Your task to perform on an android device: Open calendar and show me the third week of next month Image 0: 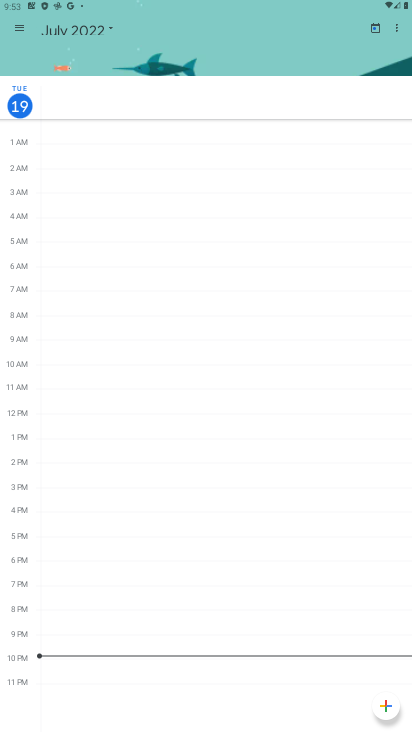
Step 0: task complete